Your task to perform on an android device: Show me recent news Image 0: 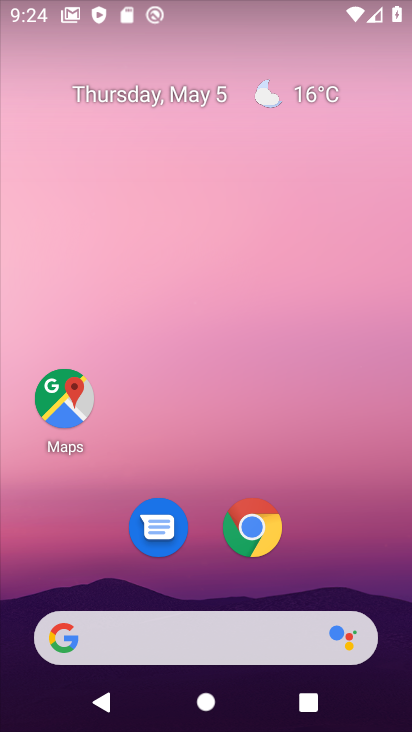
Step 0: drag from (13, 312) to (411, 340)
Your task to perform on an android device: Show me recent news Image 1: 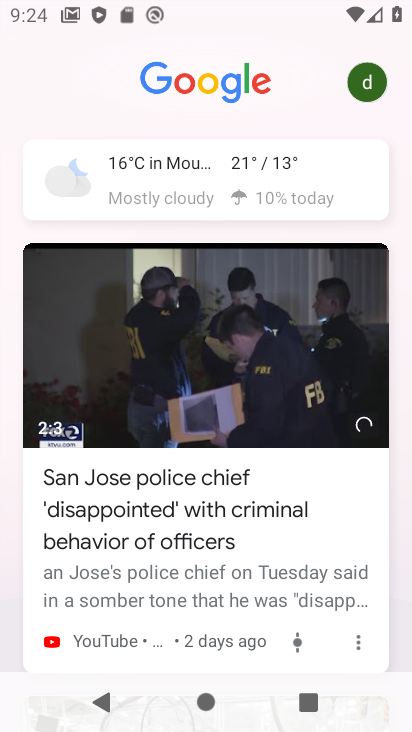
Step 1: task complete